Your task to perform on an android device: Open Android settings Image 0: 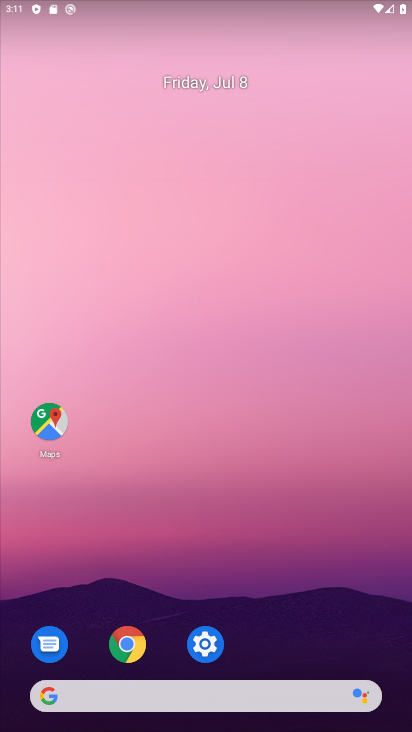
Step 0: drag from (13, 715) to (115, 86)
Your task to perform on an android device: Open Android settings Image 1: 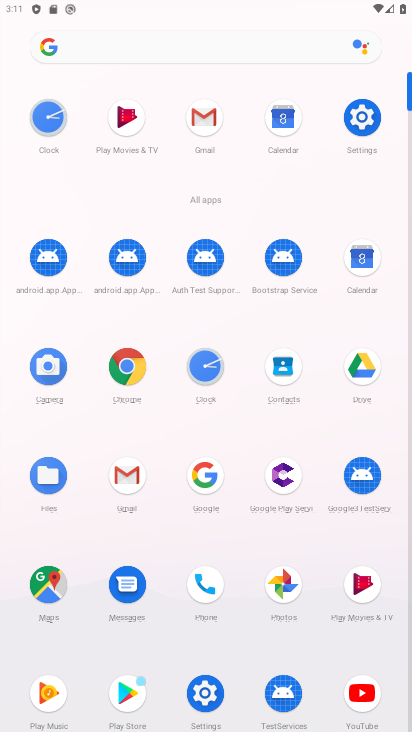
Step 1: click (211, 693)
Your task to perform on an android device: Open Android settings Image 2: 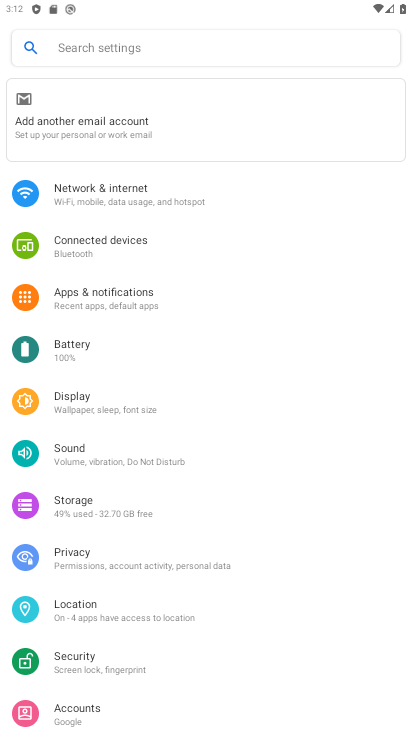
Step 2: drag from (180, 694) to (309, 45)
Your task to perform on an android device: Open Android settings Image 3: 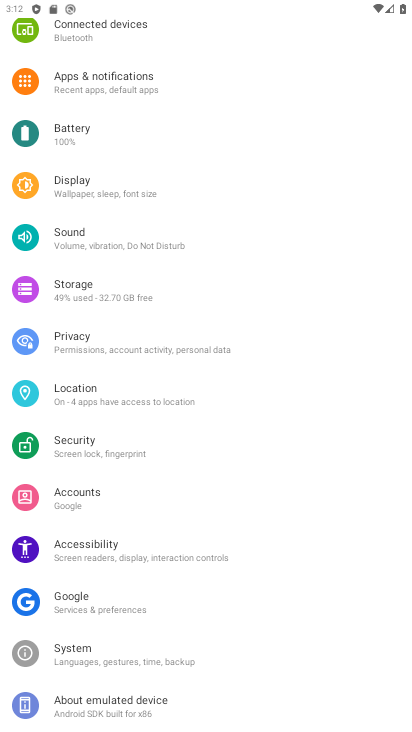
Step 3: click (111, 702)
Your task to perform on an android device: Open Android settings Image 4: 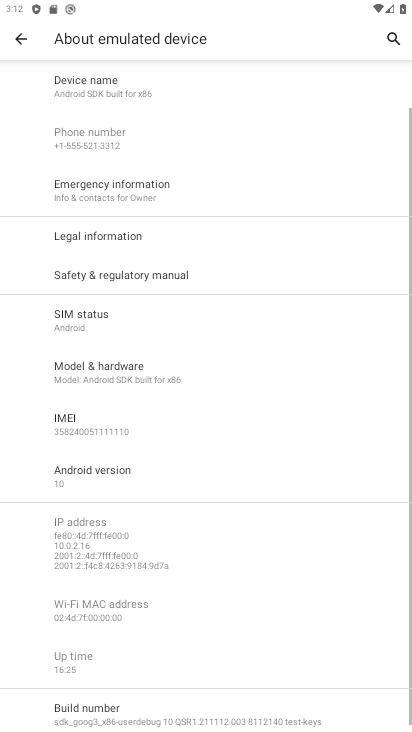
Step 4: task complete